Your task to perform on an android device: toggle sleep mode Image 0: 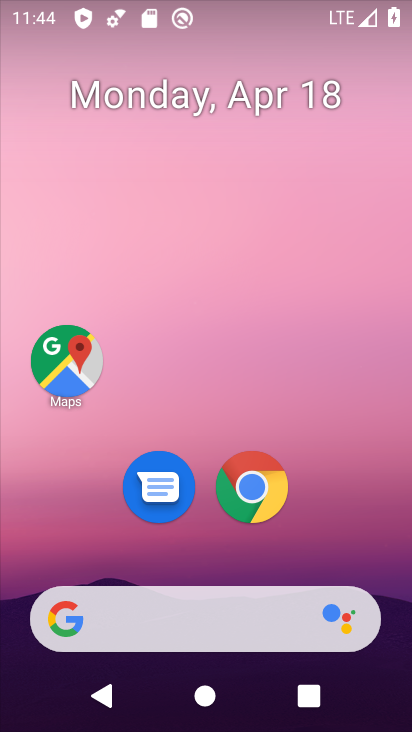
Step 0: drag from (245, 356) to (279, 23)
Your task to perform on an android device: toggle sleep mode Image 1: 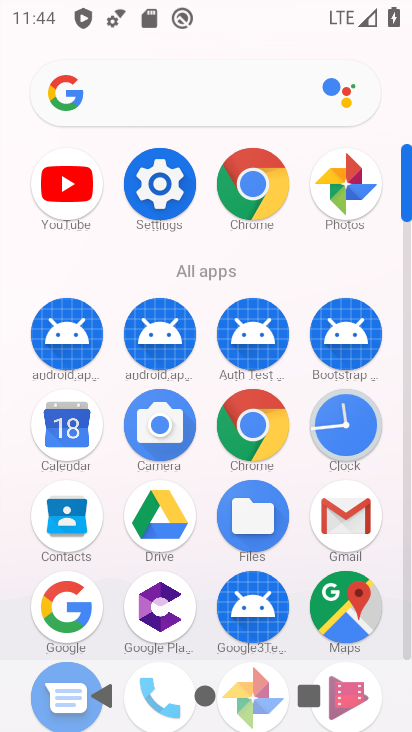
Step 1: click (161, 189)
Your task to perform on an android device: toggle sleep mode Image 2: 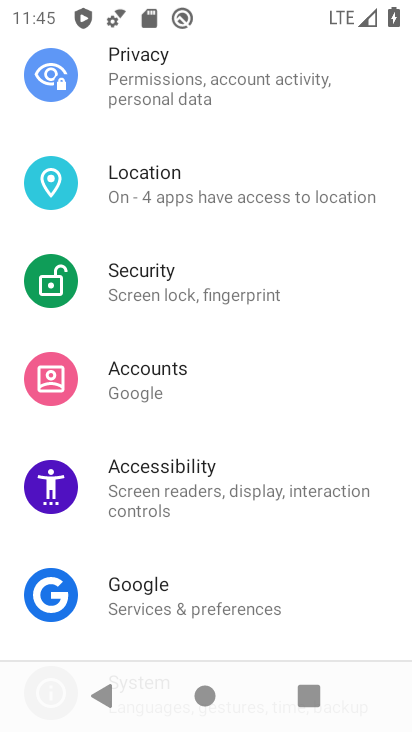
Step 2: drag from (204, 149) to (280, 508)
Your task to perform on an android device: toggle sleep mode Image 3: 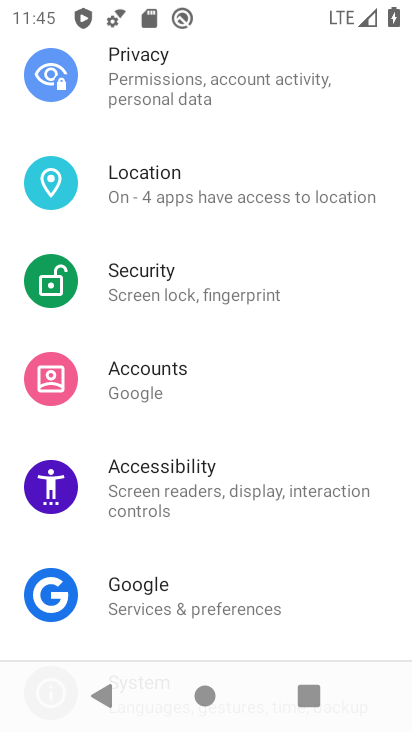
Step 3: drag from (186, 147) to (240, 468)
Your task to perform on an android device: toggle sleep mode Image 4: 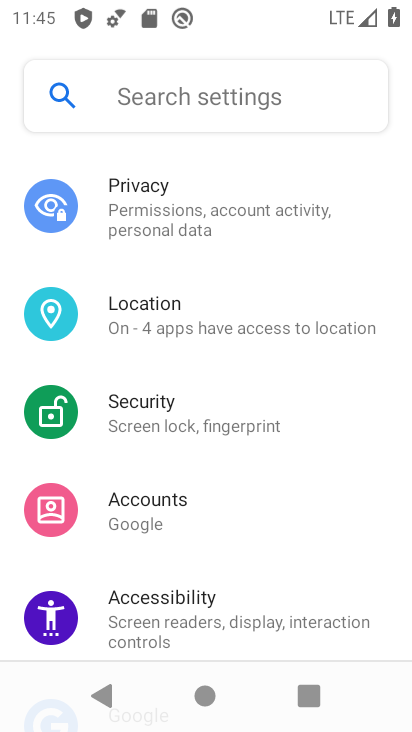
Step 4: drag from (234, 233) to (284, 515)
Your task to perform on an android device: toggle sleep mode Image 5: 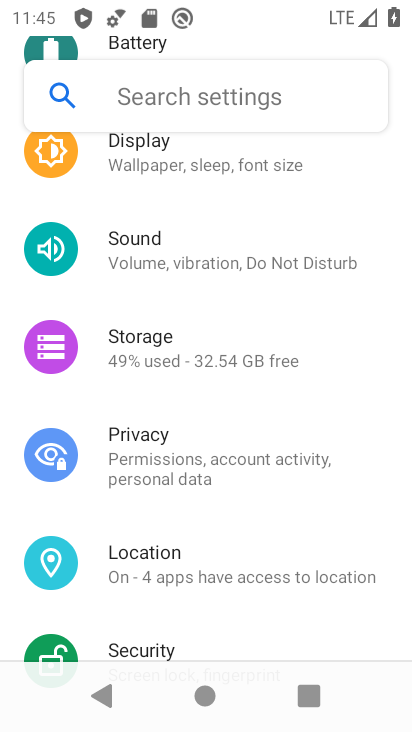
Step 5: drag from (176, 235) to (229, 576)
Your task to perform on an android device: toggle sleep mode Image 6: 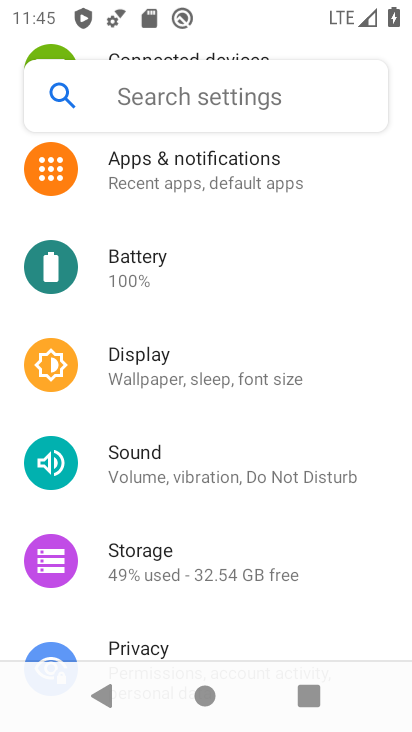
Step 6: click (162, 366)
Your task to perform on an android device: toggle sleep mode Image 7: 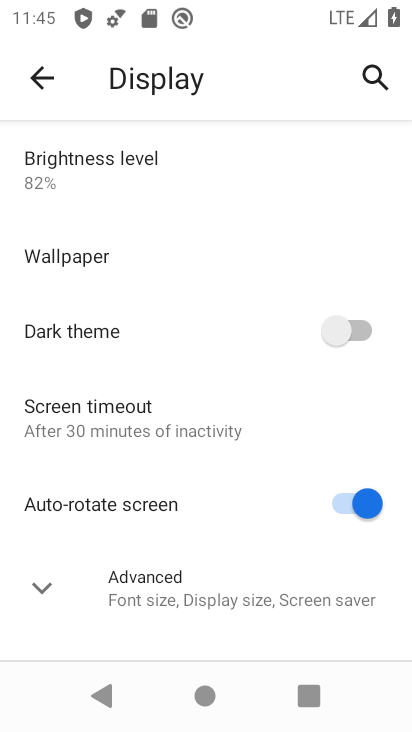
Step 7: task complete